Your task to perform on an android device: turn off location Image 0: 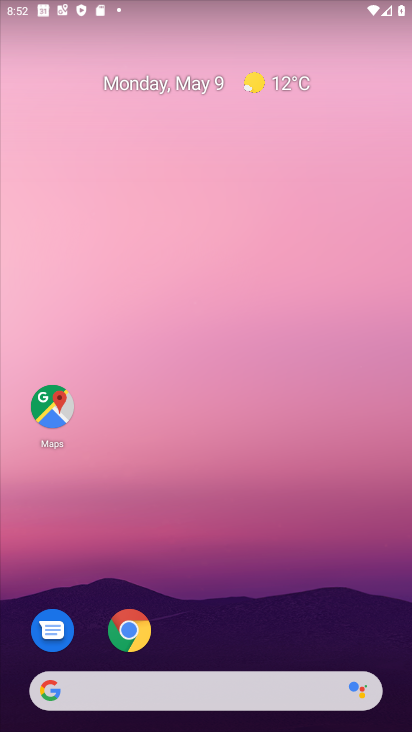
Step 0: drag from (142, 684) to (190, 270)
Your task to perform on an android device: turn off location Image 1: 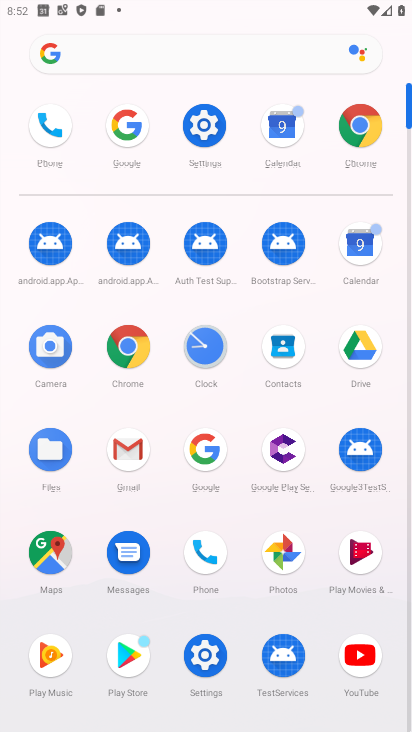
Step 1: click (198, 125)
Your task to perform on an android device: turn off location Image 2: 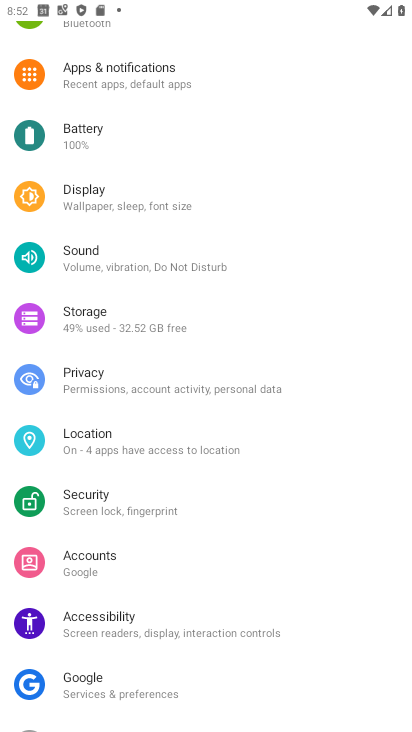
Step 2: click (97, 448)
Your task to perform on an android device: turn off location Image 3: 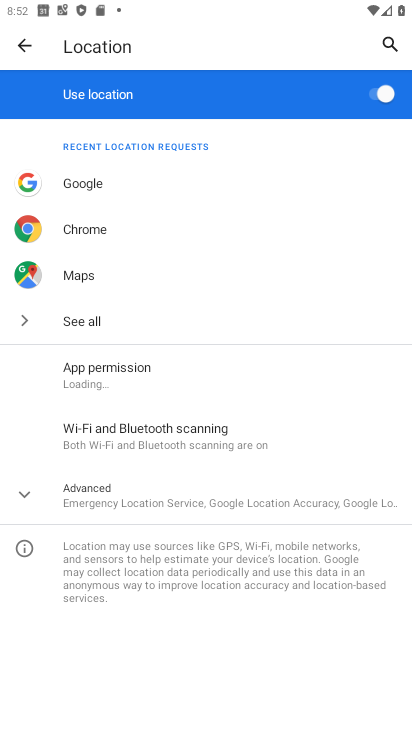
Step 3: click (374, 114)
Your task to perform on an android device: turn off location Image 4: 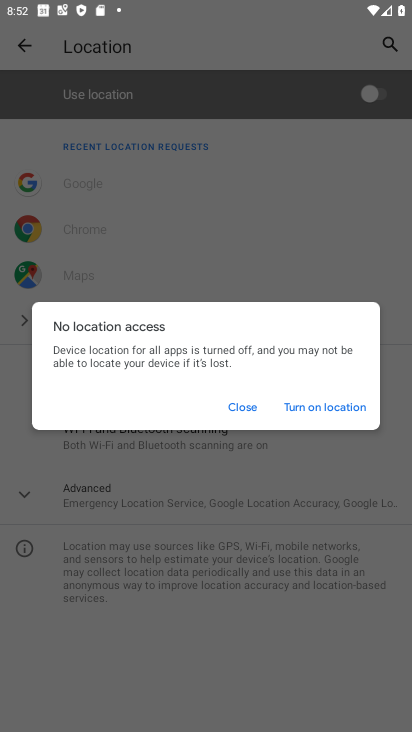
Step 4: click (362, 405)
Your task to perform on an android device: turn off location Image 5: 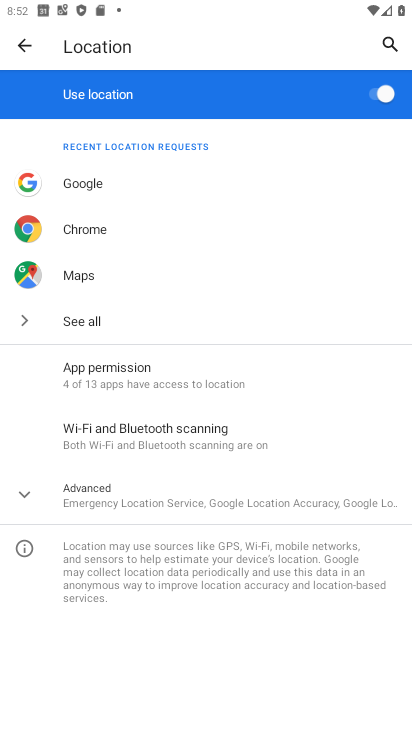
Step 5: click (376, 94)
Your task to perform on an android device: turn off location Image 6: 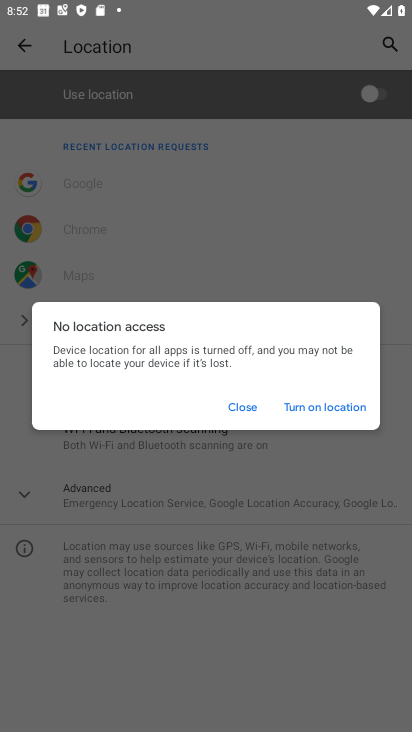
Step 6: click (240, 400)
Your task to perform on an android device: turn off location Image 7: 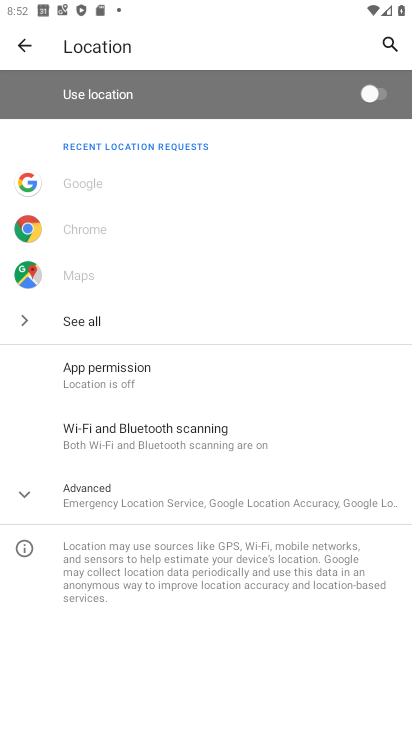
Step 7: task complete